Your task to perform on an android device: Open the calendar app, open the side menu, and click the "Day" option Image 0: 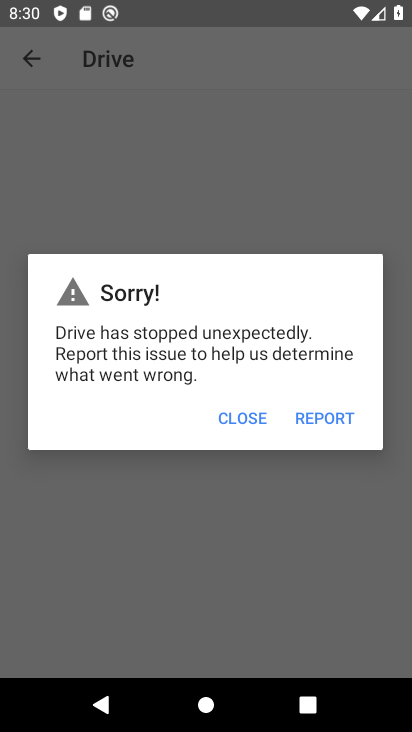
Step 0: press back button
Your task to perform on an android device: Open the calendar app, open the side menu, and click the "Day" option Image 1: 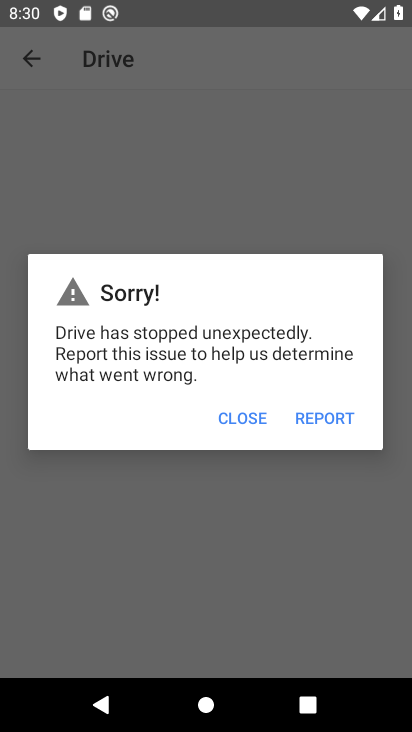
Step 1: press home button
Your task to perform on an android device: Open the calendar app, open the side menu, and click the "Day" option Image 2: 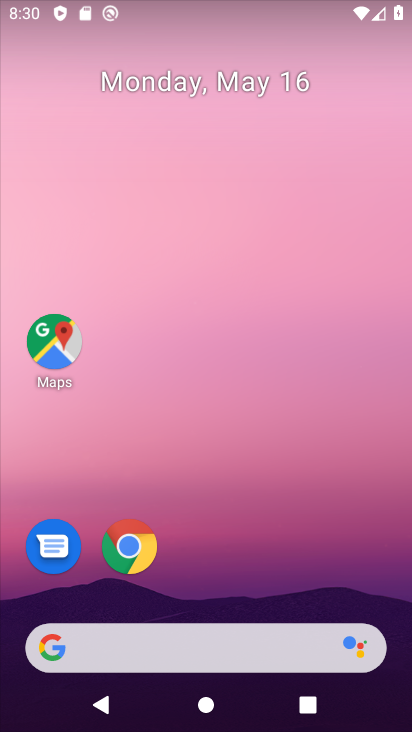
Step 2: drag from (242, 577) to (186, 117)
Your task to perform on an android device: Open the calendar app, open the side menu, and click the "Day" option Image 3: 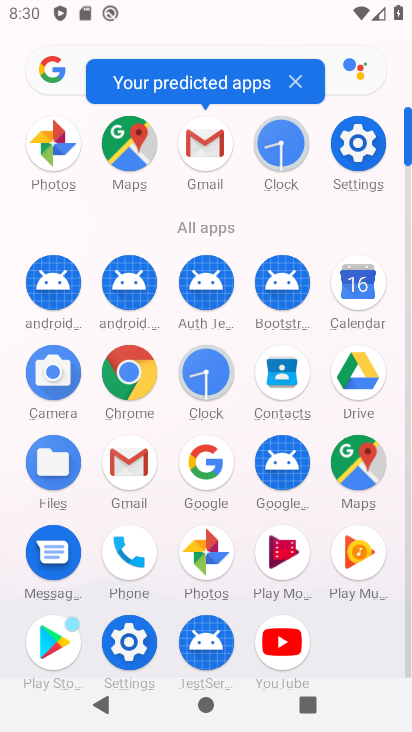
Step 3: click (371, 283)
Your task to perform on an android device: Open the calendar app, open the side menu, and click the "Day" option Image 4: 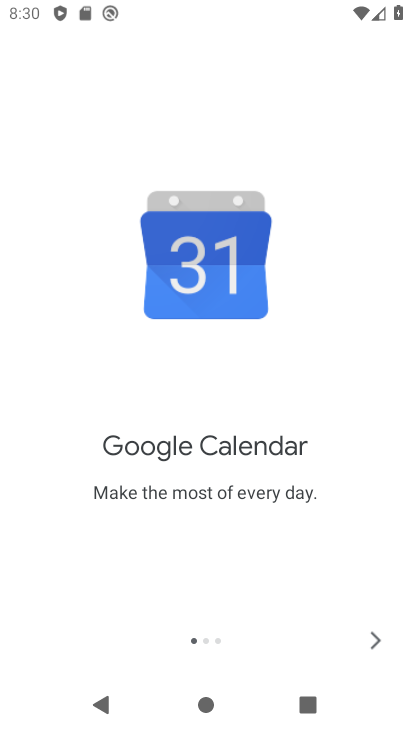
Step 4: click (379, 639)
Your task to perform on an android device: Open the calendar app, open the side menu, and click the "Day" option Image 5: 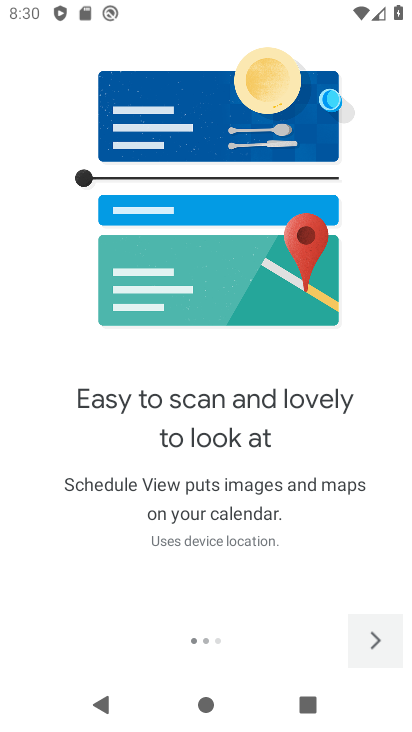
Step 5: click (379, 639)
Your task to perform on an android device: Open the calendar app, open the side menu, and click the "Day" option Image 6: 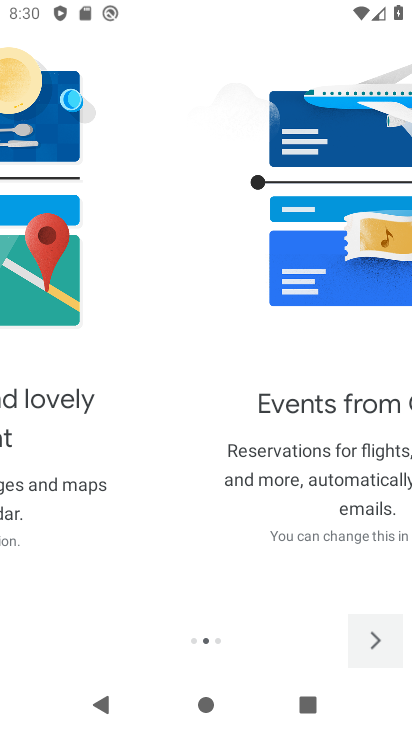
Step 6: click (379, 639)
Your task to perform on an android device: Open the calendar app, open the side menu, and click the "Day" option Image 7: 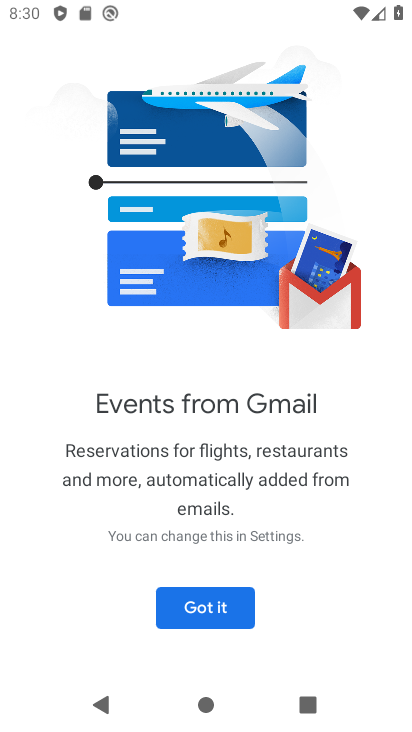
Step 7: click (379, 639)
Your task to perform on an android device: Open the calendar app, open the side menu, and click the "Day" option Image 8: 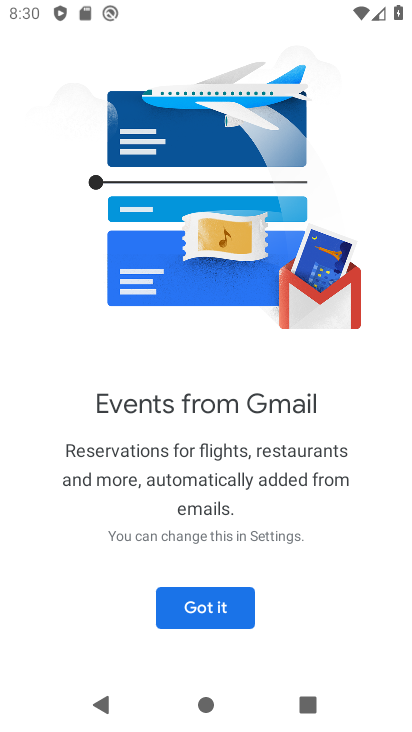
Step 8: click (232, 620)
Your task to perform on an android device: Open the calendar app, open the side menu, and click the "Day" option Image 9: 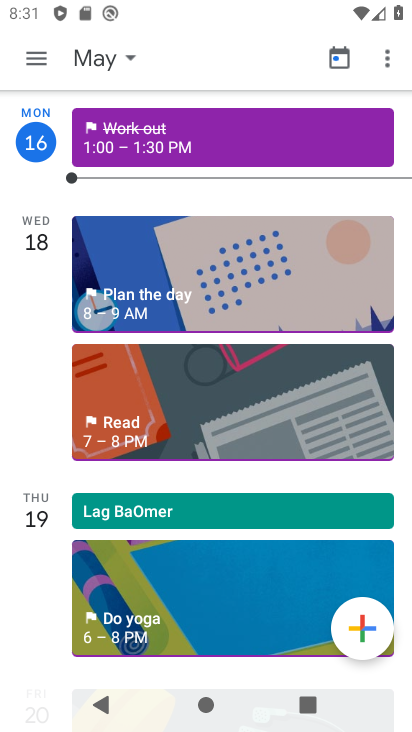
Step 9: click (32, 60)
Your task to perform on an android device: Open the calendar app, open the side menu, and click the "Day" option Image 10: 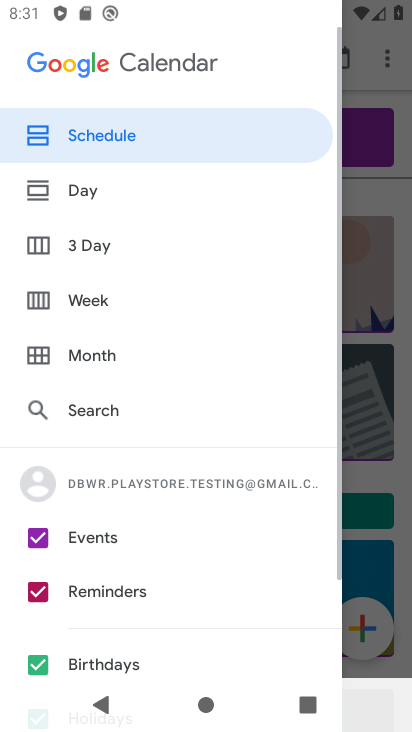
Step 10: click (98, 188)
Your task to perform on an android device: Open the calendar app, open the side menu, and click the "Day" option Image 11: 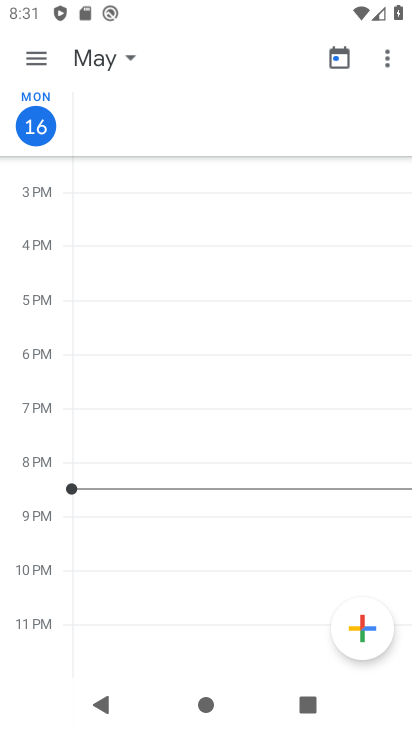
Step 11: task complete